Your task to perform on an android device: change the clock display to show seconds Image 0: 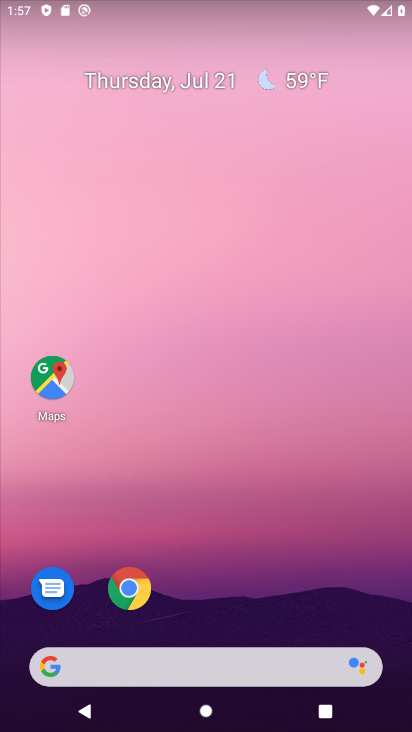
Step 0: drag from (406, 677) to (333, 302)
Your task to perform on an android device: change the clock display to show seconds Image 1: 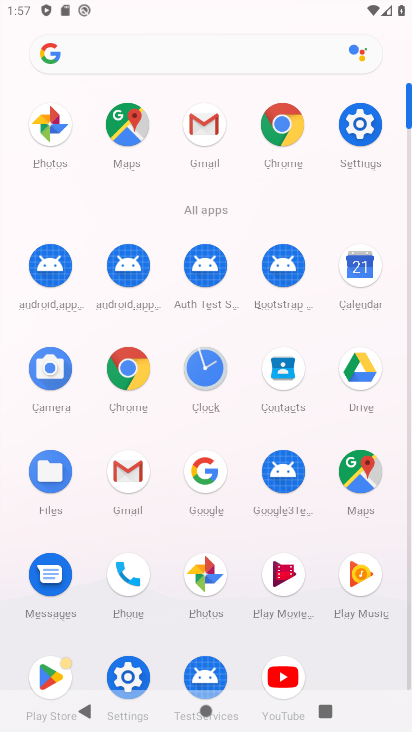
Step 1: drag from (390, 616) to (341, 108)
Your task to perform on an android device: change the clock display to show seconds Image 2: 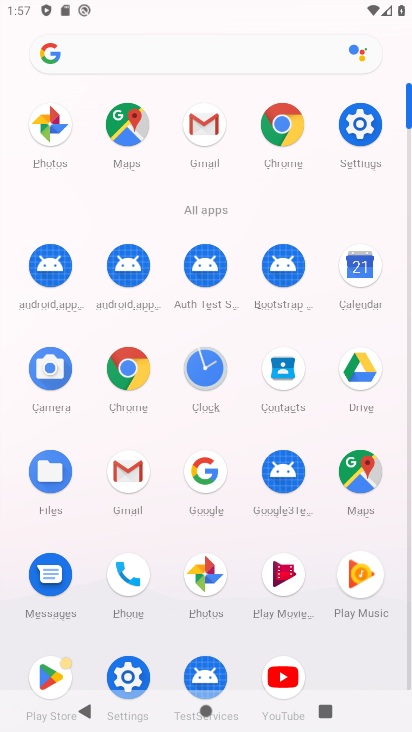
Step 2: drag from (305, 110) to (377, 117)
Your task to perform on an android device: change the clock display to show seconds Image 3: 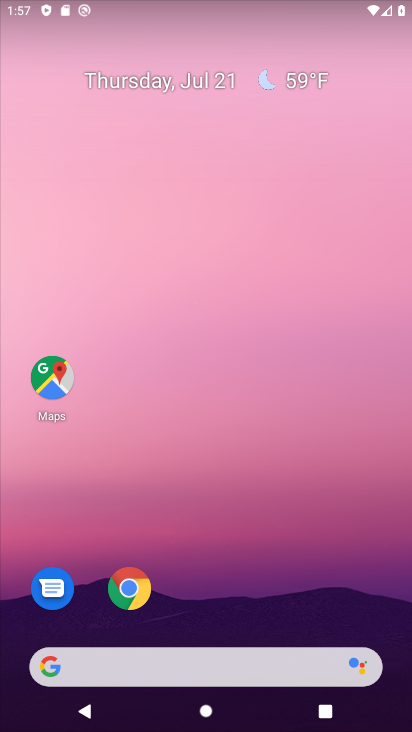
Step 3: drag from (383, 651) to (313, 103)
Your task to perform on an android device: change the clock display to show seconds Image 4: 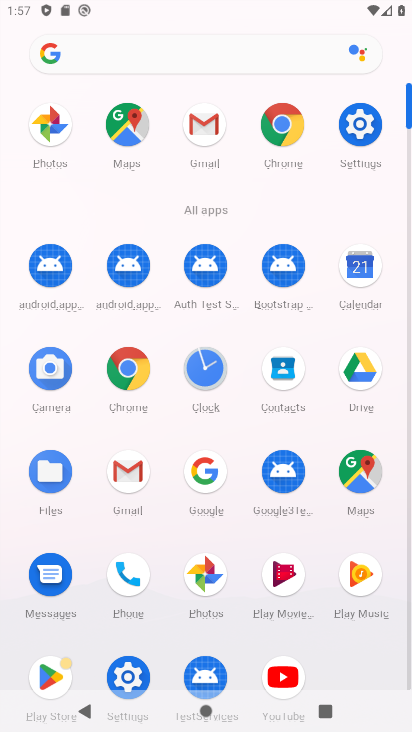
Step 4: click (183, 377)
Your task to perform on an android device: change the clock display to show seconds Image 5: 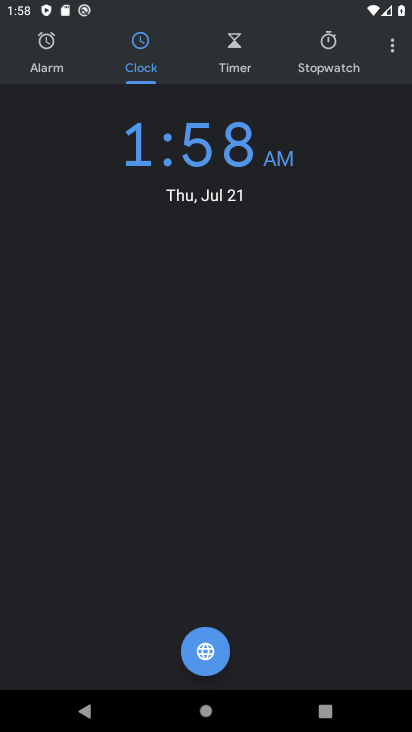
Step 5: click (394, 44)
Your task to perform on an android device: change the clock display to show seconds Image 6: 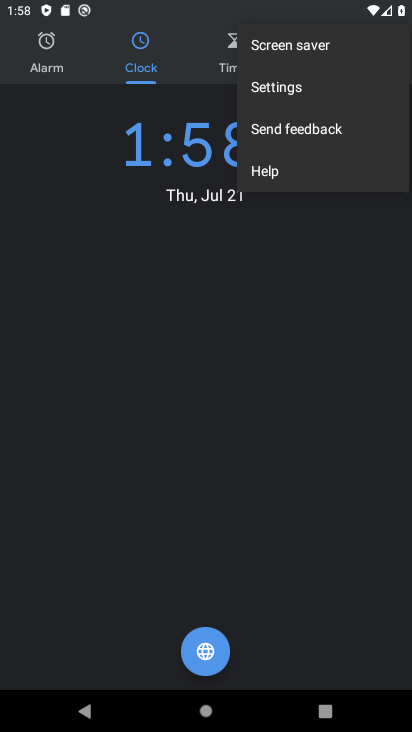
Step 6: click (298, 90)
Your task to perform on an android device: change the clock display to show seconds Image 7: 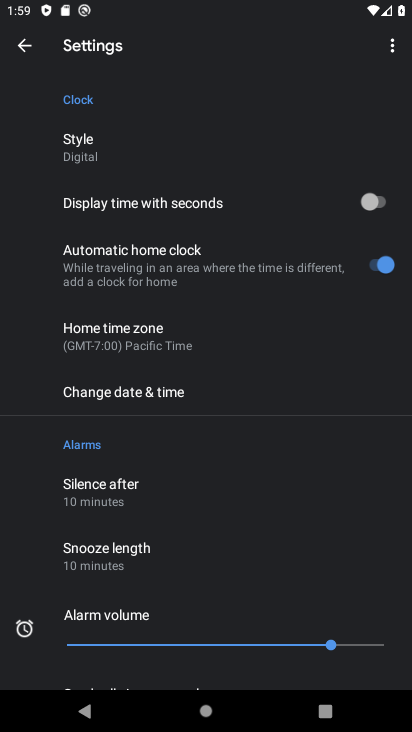
Step 7: click (365, 186)
Your task to perform on an android device: change the clock display to show seconds Image 8: 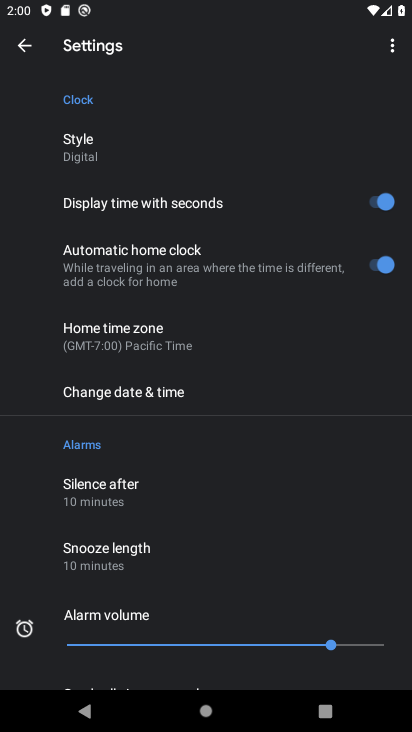
Step 8: task complete